Your task to perform on an android device: When is my next meeting? Image 0: 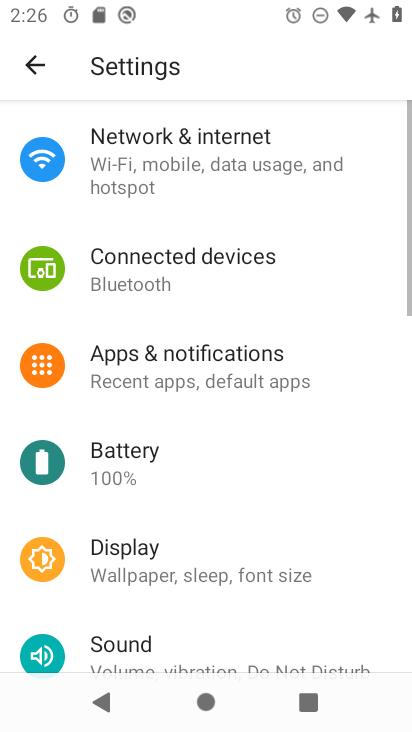
Step 0: press home button
Your task to perform on an android device: When is my next meeting? Image 1: 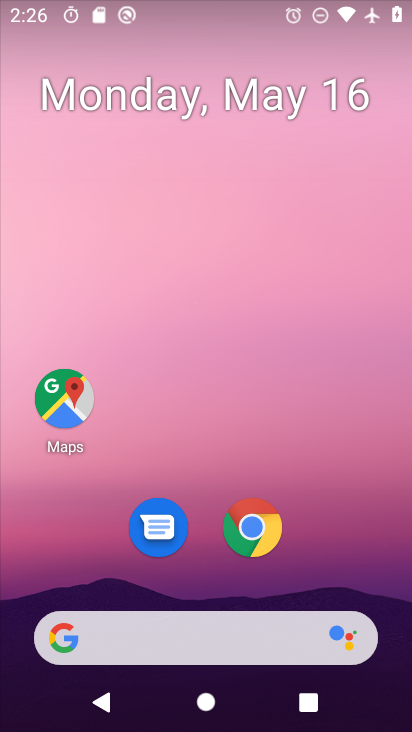
Step 1: drag from (179, 629) to (311, 136)
Your task to perform on an android device: When is my next meeting? Image 2: 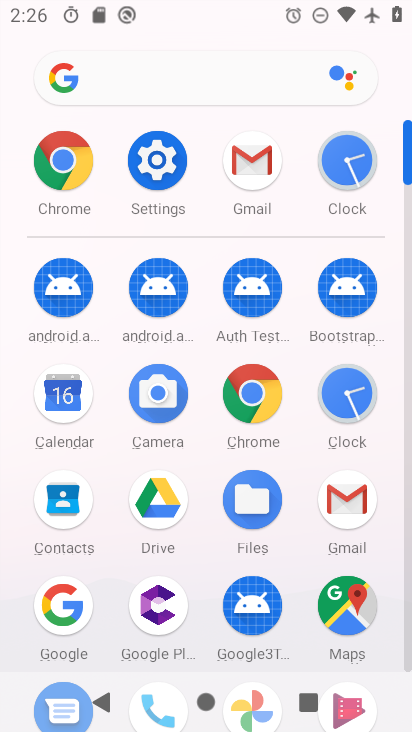
Step 2: click (73, 405)
Your task to perform on an android device: When is my next meeting? Image 3: 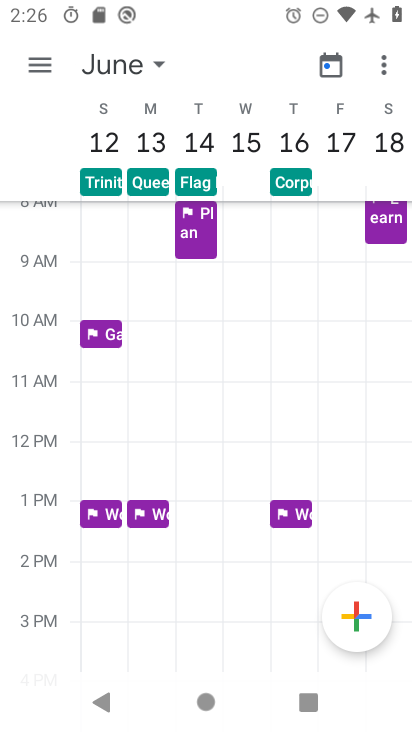
Step 3: click (120, 63)
Your task to perform on an android device: When is my next meeting? Image 4: 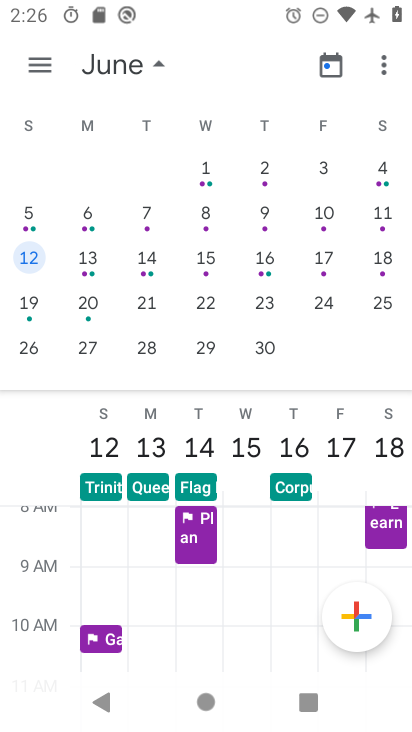
Step 4: drag from (136, 280) to (359, 287)
Your task to perform on an android device: When is my next meeting? Image 5: 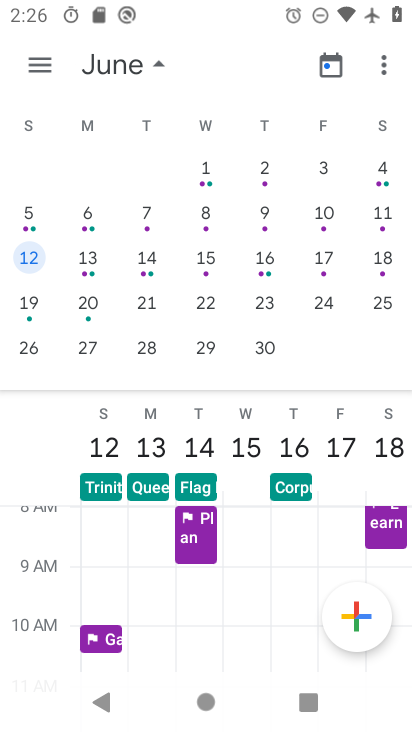
Step 5: drag from (174, 240) to (402, 262)
Your task to perform on an android device: When is my next meeting? Image 6: 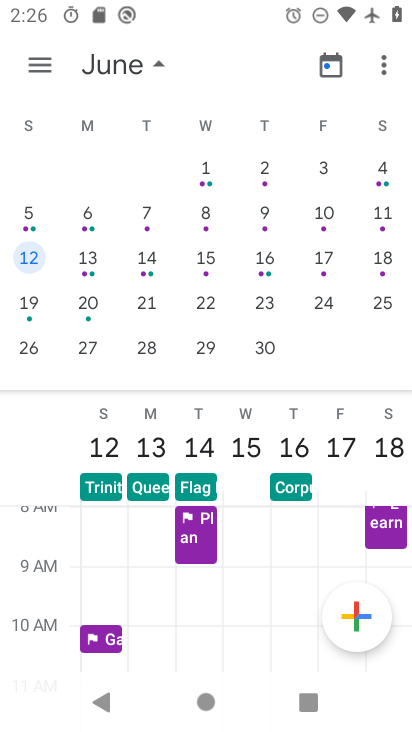
Step 6: click (376, 184)
Your task to perform on an android device: When is my next meeting? Image 7: 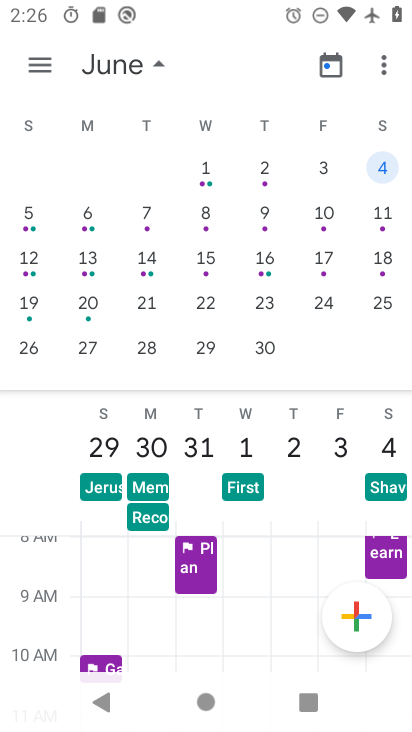
Step 7: drag from (196, 279) to (396, 278)
Your task to perform on an android device: When is my next meeting? Image 8: 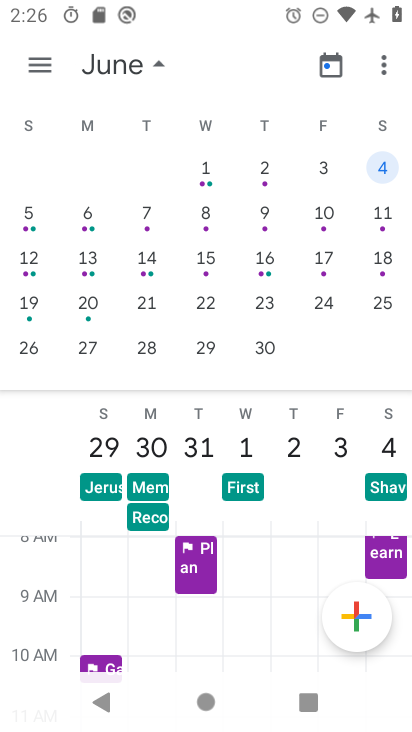
Step 8: drag from (137, 295) to (383, 359)
Your task to perform on an android device: When is my next meeting? Image 9: 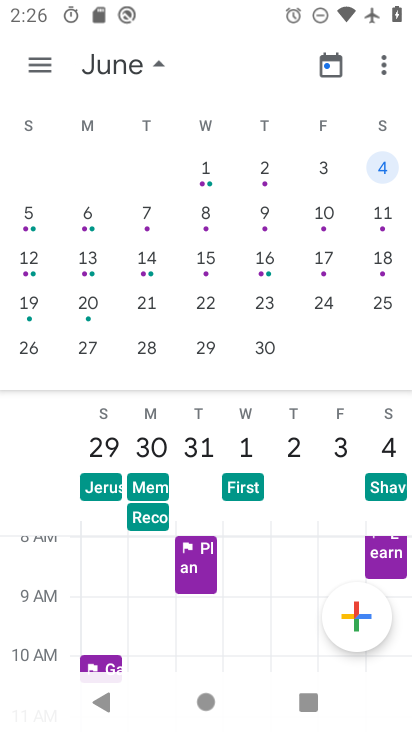
Step 9: click (107, 448)
Your task to perform on an android device: When is my next meeting? Image 10: 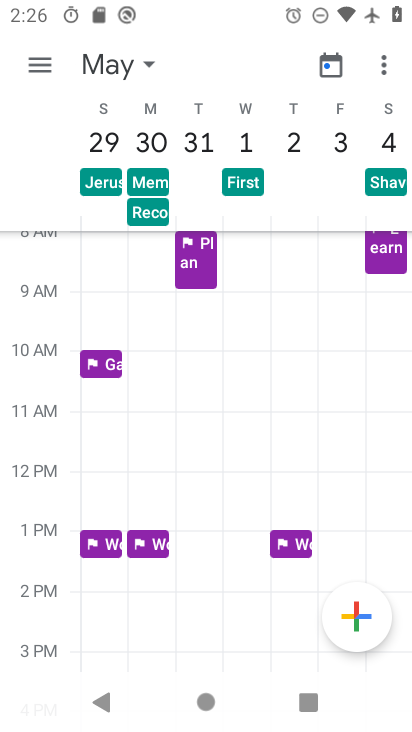
Step 10: drag from (73, 278) to (362, 230)
Your task to perform on an android device: When is my next meeting? Image 11: 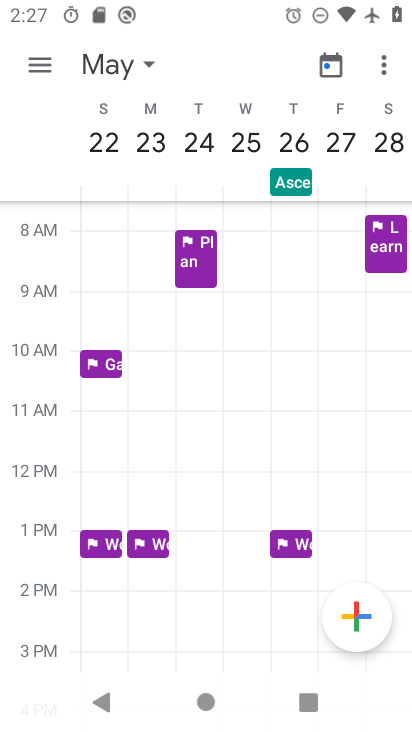
Step 11: click (109, 78)
Your task to perform on an android device: When is my next meeting? Image 12: 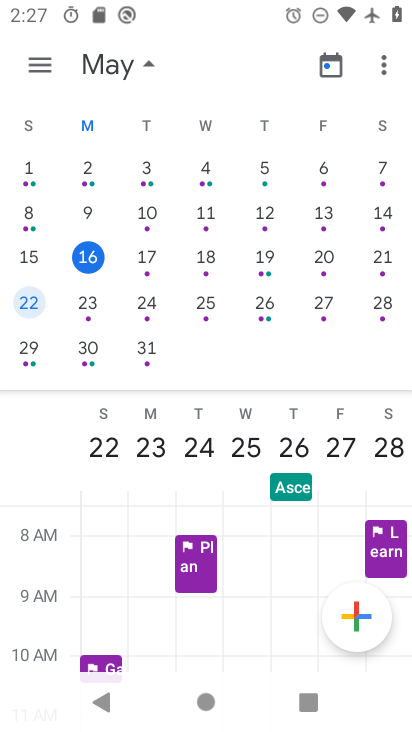
Step 12: click (95, 263)
Your task to perform on an android device: When is my next meeting? Image 13: 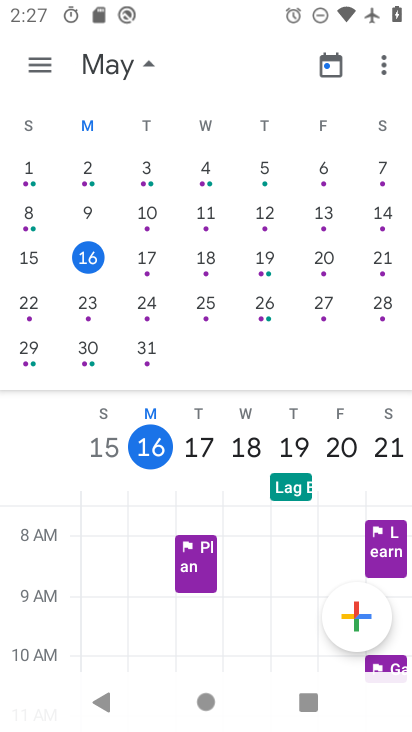
Step 13: click (40, 67)
Your task to perform on an android device: When is my next meeting? Image 14: 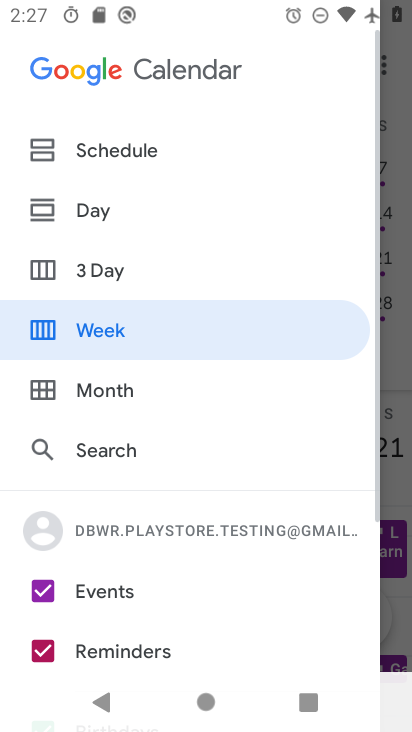
Step 14: click (108, 155)
Your task to perform on an android device: When is my next meeting? Image 15: 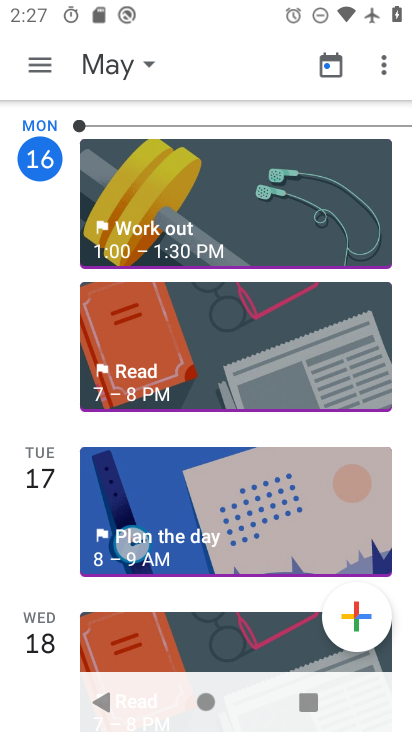
Step 15: drag from (192, 618) to (379, 236)
Your task to perform on an android device: When is my next meeting? Image 16: 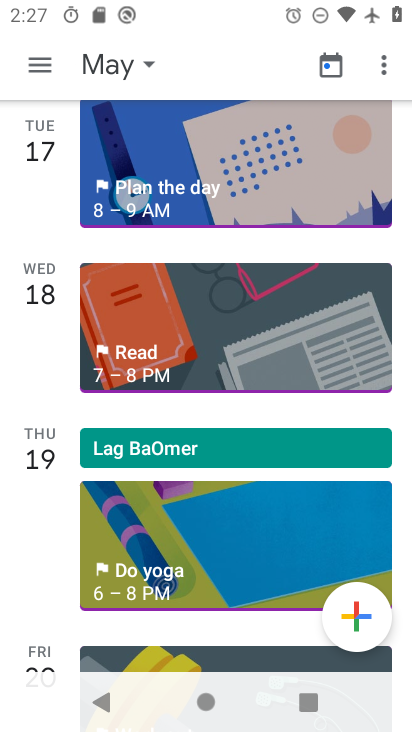
Step 16: drag from (219, 693) to (355, 117)
Your task to perform on an android device: When is my next meeting? Image 17: 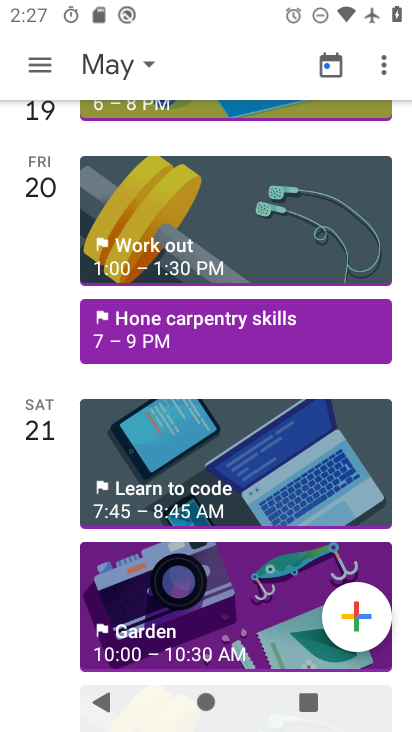
Step 17: click (203, 354)
Your task to perform on an android device: When is my next meeting? Image 18: 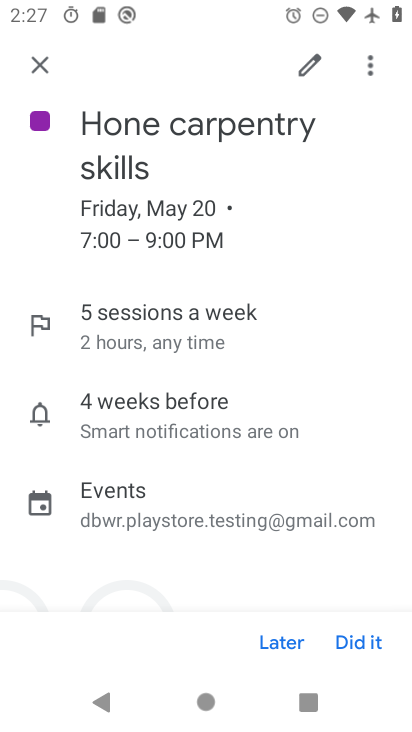
Step 18: task complete